Your task to perform on an android device: check the backup settings in the google photos Image 0: 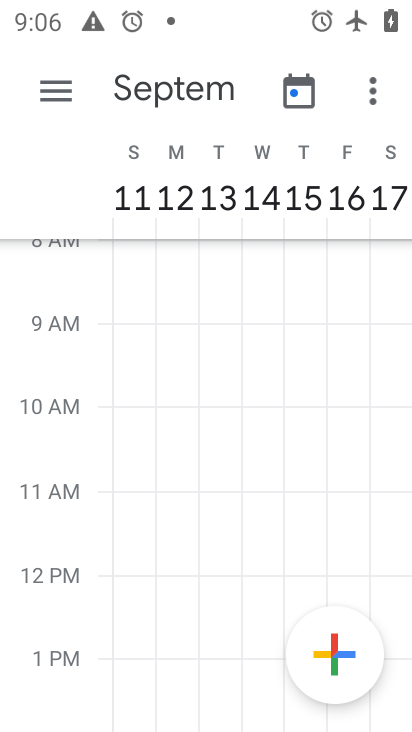
Step 0: press home button
Your task to perform on an android device: check the backup settings in the google photos Image 1: 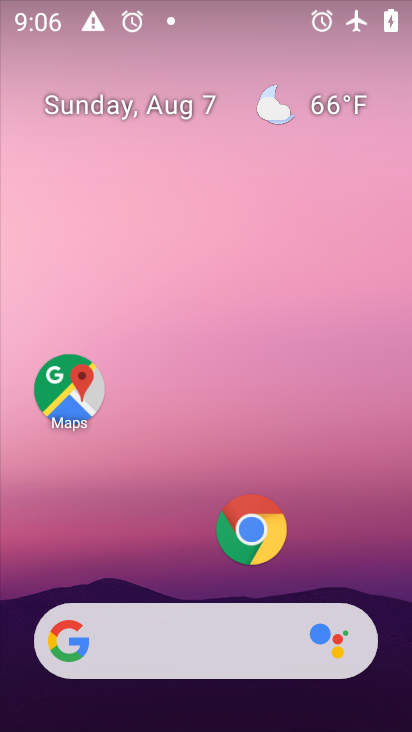
Step 1: drag from (138, 394) to (175, 2)
Your task to perform on an android device: check the backup settings in the google photos Image 2: 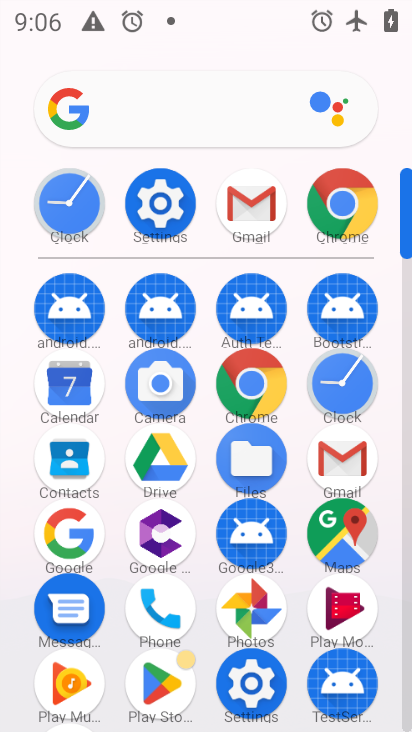
Step 2: click (229, 612)
Your task to perform on an android device: check the backup settings in the google photos Image 3: 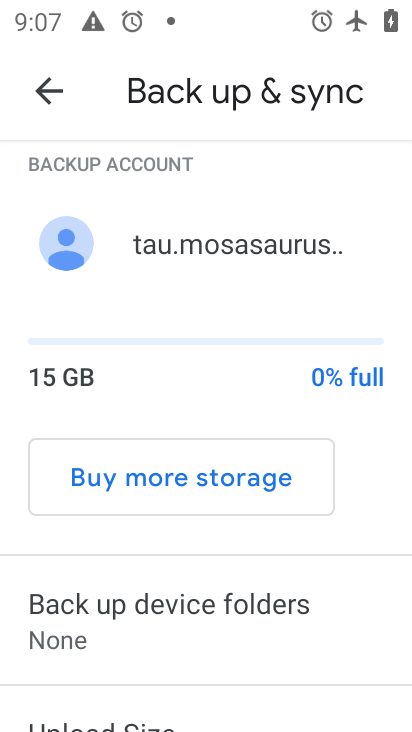
Step 3: task complete